Your task to perform on an android device: search for starred emails in the gmail app Image 0: 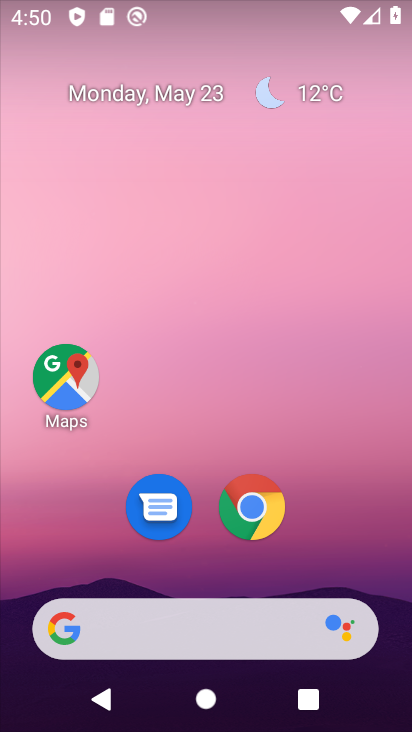
Step 0: press home button
Your task to perform on an android device: search for starred emails in the gmail app Image 1: 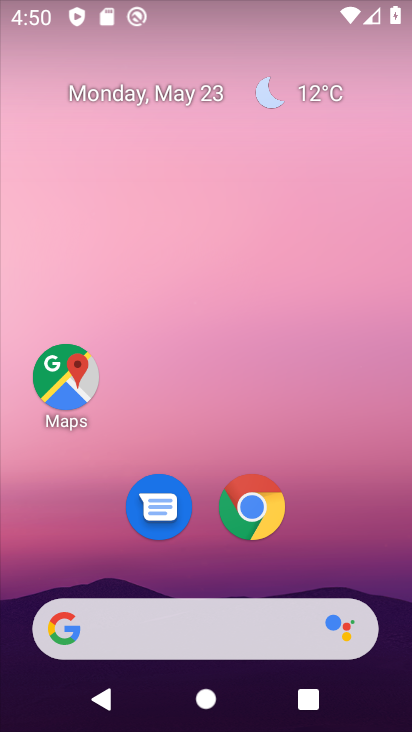
Step 1: drag from (22, 559) to (294, 118)
Your task to perform on an android device: search for starred emails in the gmail app Image 2: 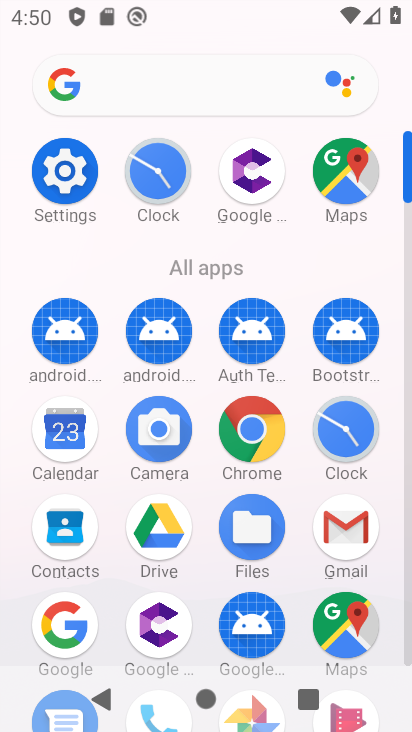
Step 2: click (324, 528)
Your task to perform on an android device: search for starred emails in the gmail app Image 3: 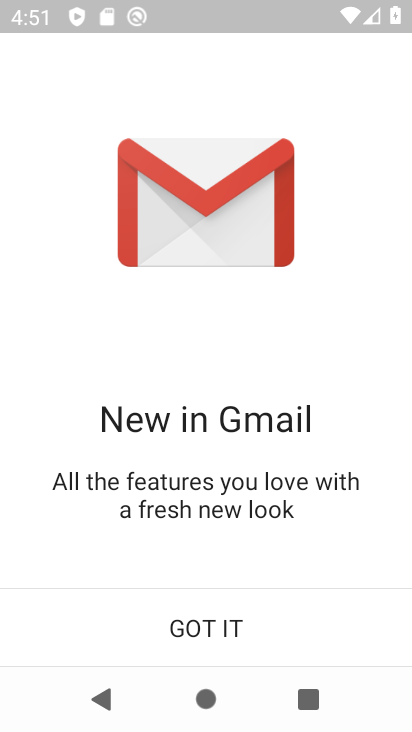
Step 3: click (196, 633)
Your task to perform on an android device: search for starred emails in the gmail app Image 4: 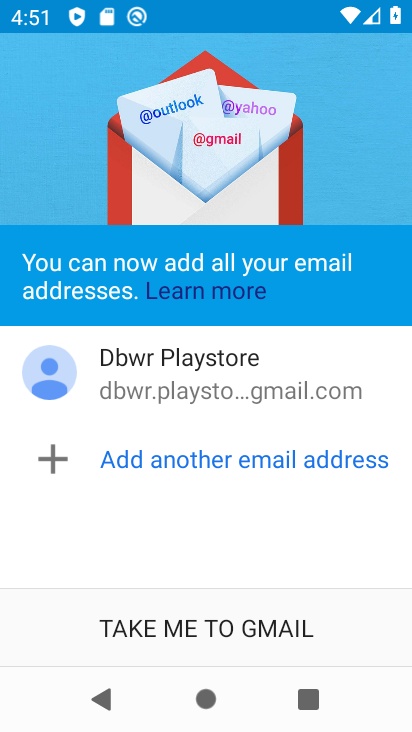
Step 4: click (197, 632)
Your task to perform on an android device: search for starred emails in the gmail app Image 5: 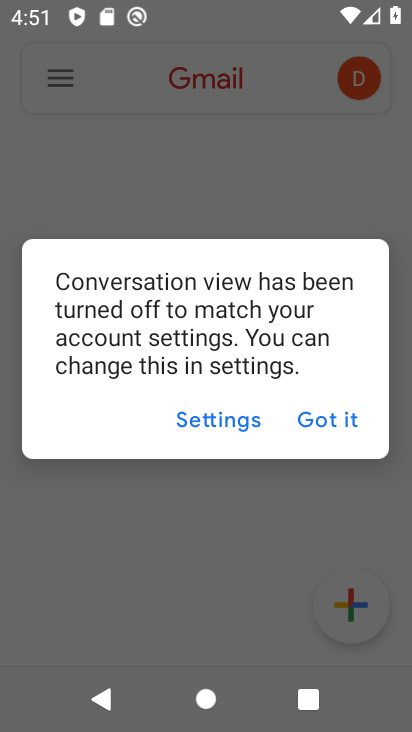
Step 5: click (333, 429)
Your task to perform on an android device: search for starred emails in the gmail app Image 6: 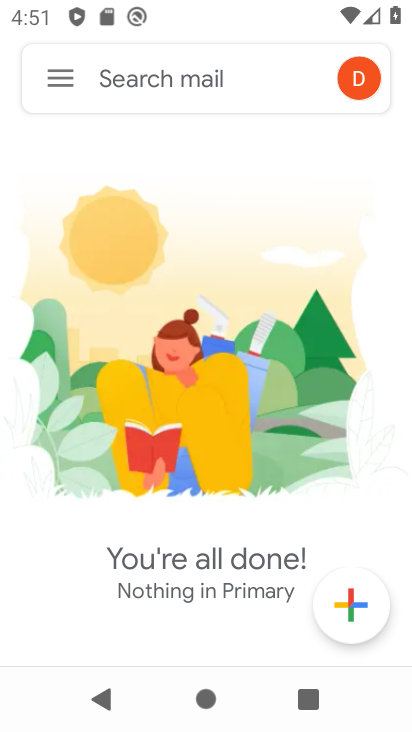
Step 6: click (66, 80)
Your task to perform on an android device: search for starred emails in the gmail app Image 7: 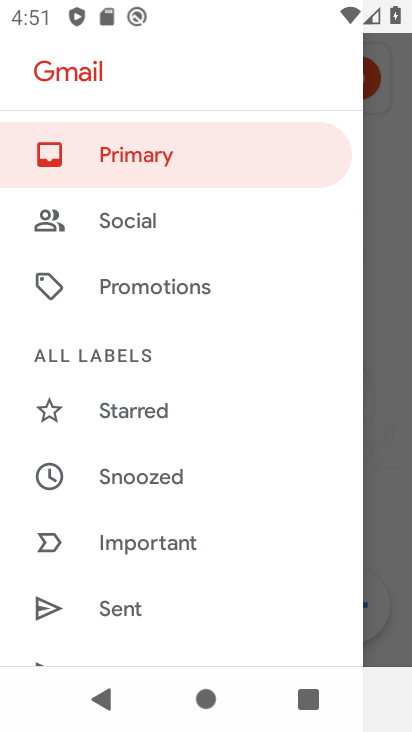
Step 7: drag from (42, 544) to (216, 142)
Your task to perform on an android device: search for starred emails in the gmail app Image 8: 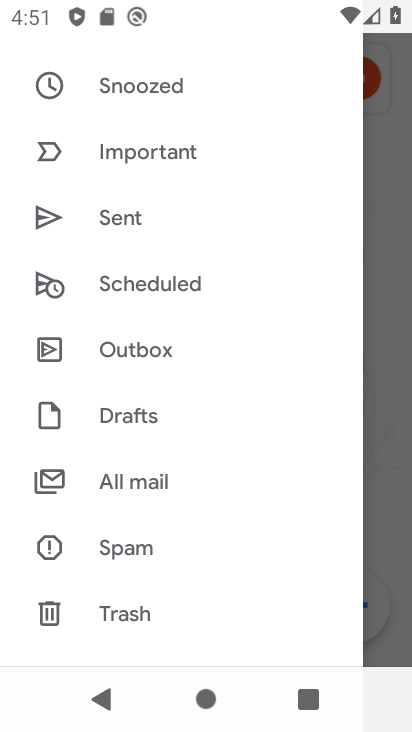
Step 8: drag from (3, 624) to (213, 151)
Your task to perform on an android device: search for starred emails in the gmail app Image 9: 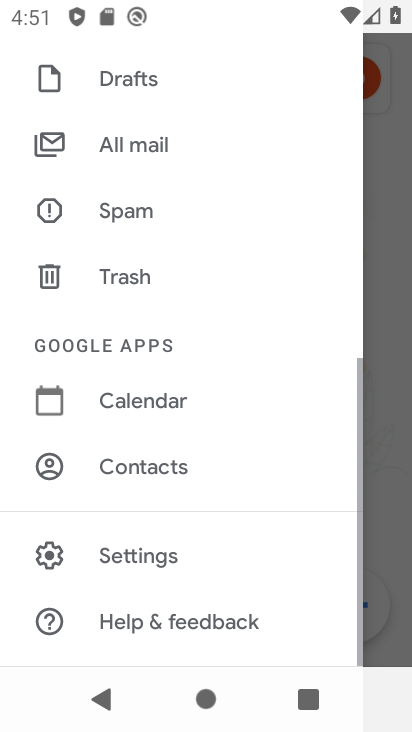
Step 9: drag from (213, 151) to (192, 643)
Your task to perform on an android device: search for starred emails in the gmail app Image 10: 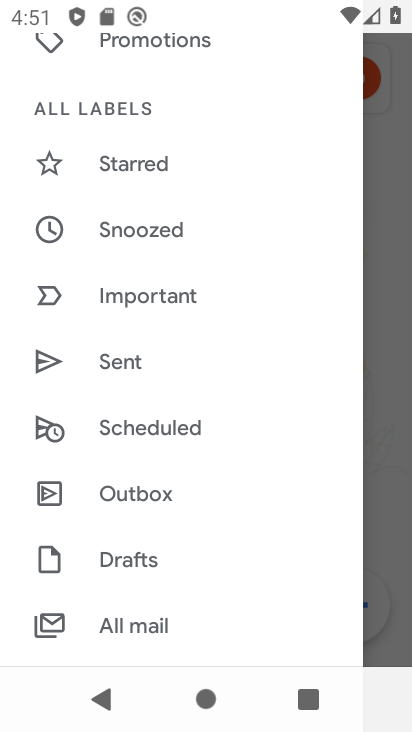
Step 10: click (170, 175)
Your task to perform on an android device: search for starred emails in the gmail app Image 11: 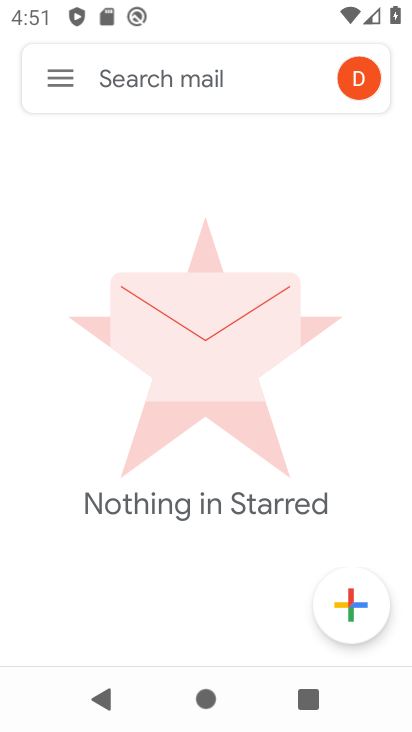
Step 11: task complete